Your task to perform on an android device: Go to wifi settings Image 0: 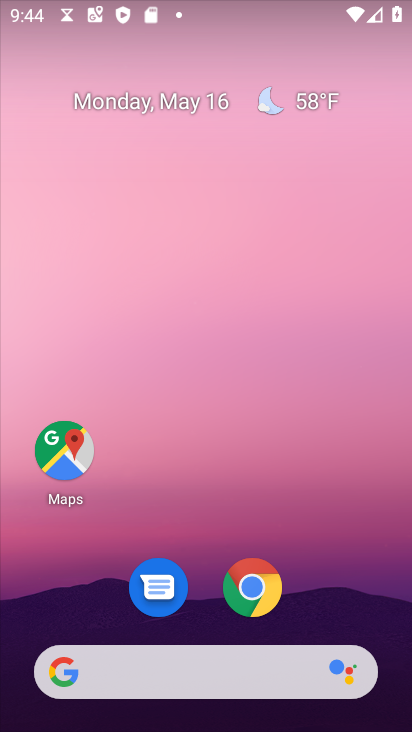
Step 0: click (364, 586)
Your task to perform on an android device: Go to wifi settings Image 1: 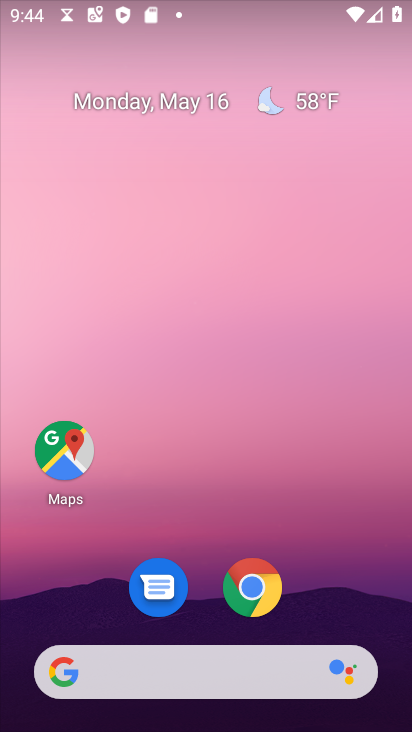
Step 1: drag from (364, 586) to (302, 121)
Your task to perform on an android device: Go to wifi settings Image 2: 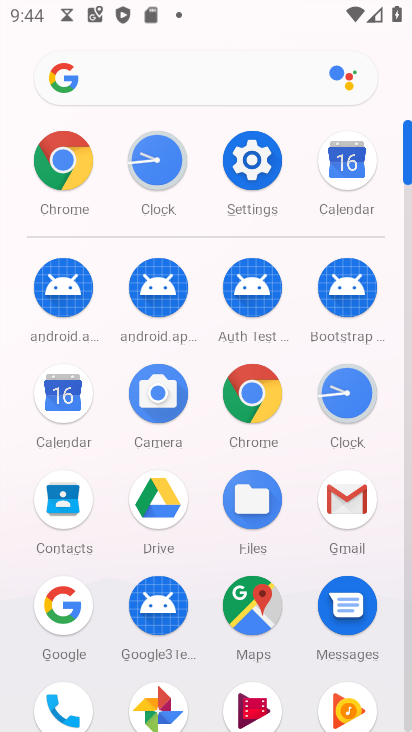
Step 2: click (260, 160)
Your task to perform on an android device: Go to wifi settings Image 3: 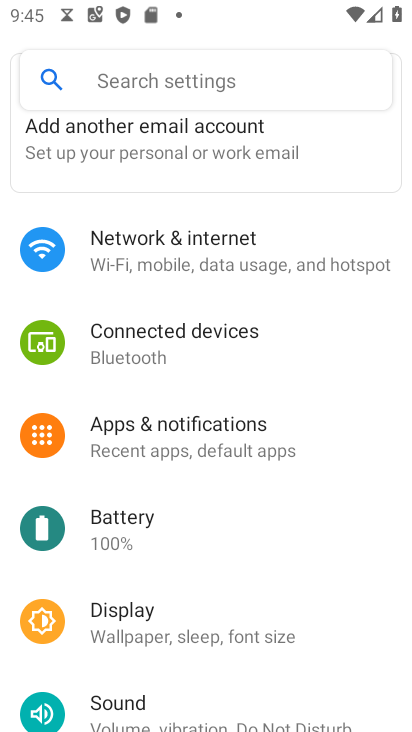
Step 3: click (230, 235)
Your task to perform on an android device: Go to wifi settings Image 4: 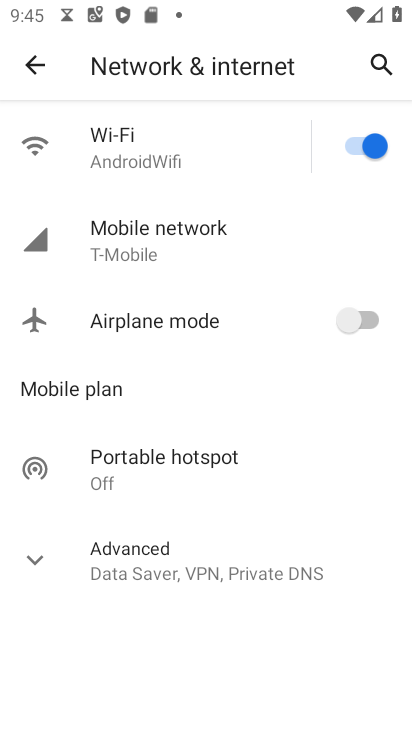
Step 4: click (179, 154)
Your task to perform on an android device: Go to wifi settings Image 5: 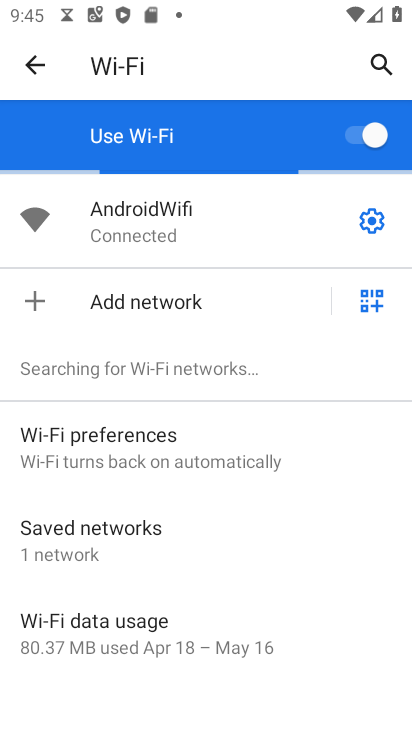
Step 5: task complete